Your task to perform on an android device: Show me the alarms in the clock app Image 0: 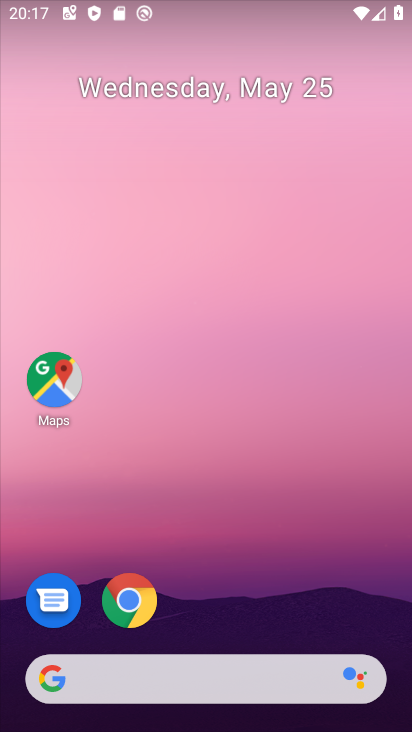
Step 0: drag from (377, 606) to (255, 156)
Your task to perform on an android device: Show me the alarms in the clock app Image 1: 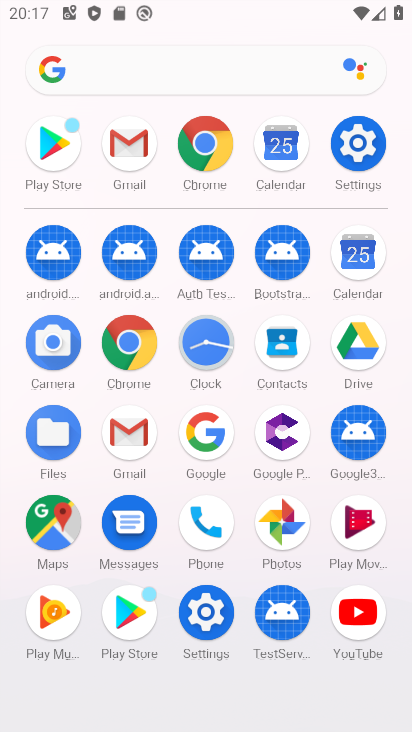
Step 1: click (208, 357)
Your task to perform on an android device: Show me the alarms in the clock app Image 2: 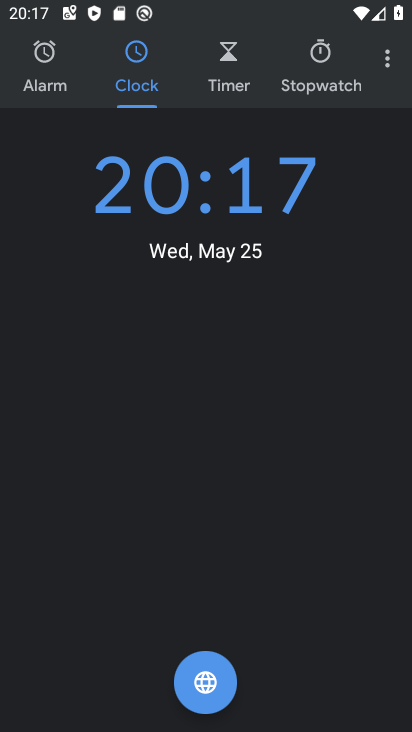
Step 2: click (45, 71)
Your task to perform on an android device: Show me the alarms in the clock app Image 3: 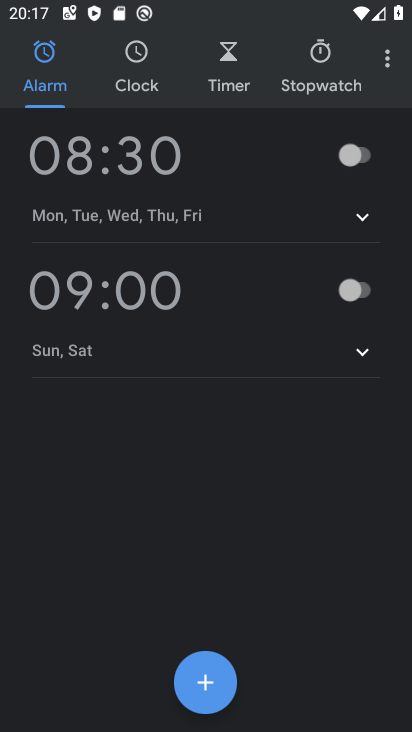
Step 3: task complete